Your task to perform on an android device: What's the US dollar exchange rate against the Euro? Image 0: 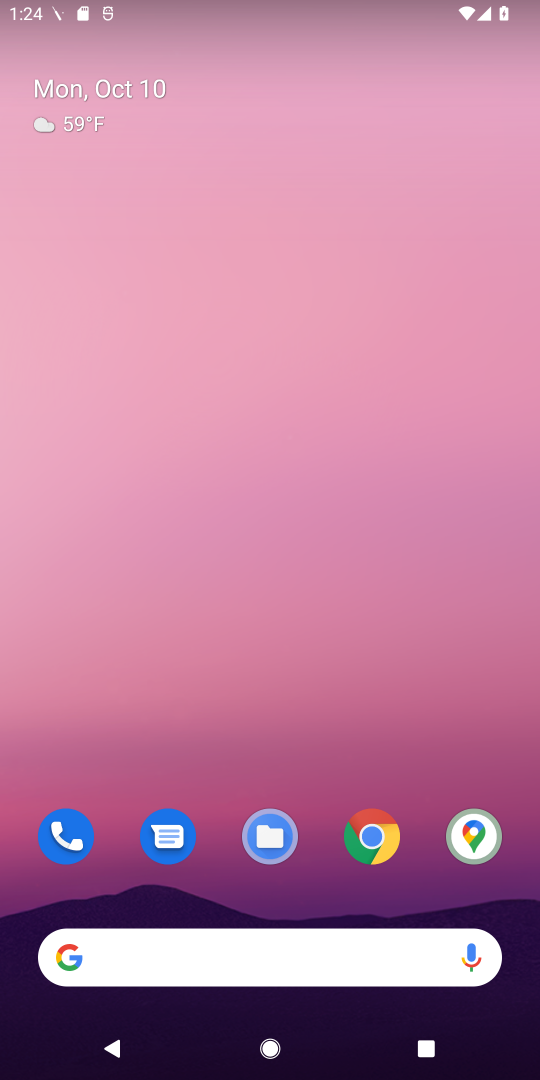
Step 0: click (373, 820)
Your task to perform on an android device: What's the US dollar exchange rate against the Euro? Image 1: 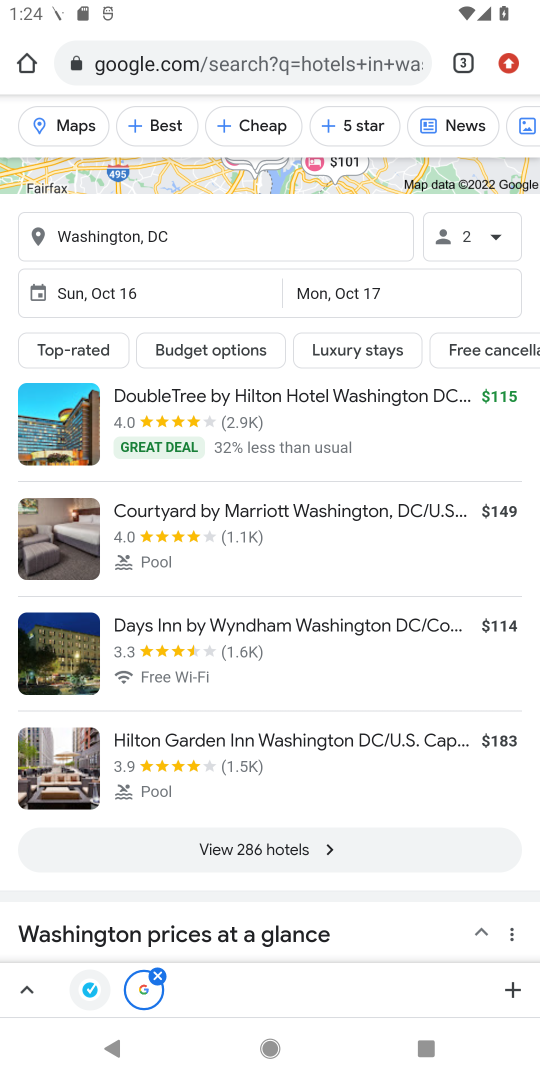
Step 1: click (235, 73)
Your task to perform on an android device: What's the US dollar exchange rate against the Euro? Image 2: 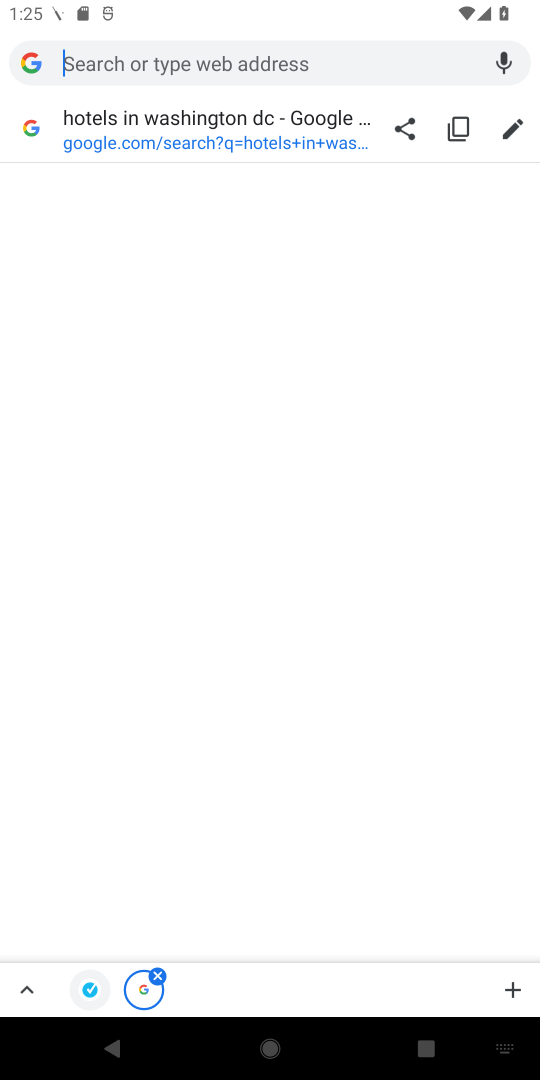
Step 2: type "US dollar exchange rate against the Euro"
Your task to perform on an android device: What's the US dollar exchange rate against the Euro? Image 3: 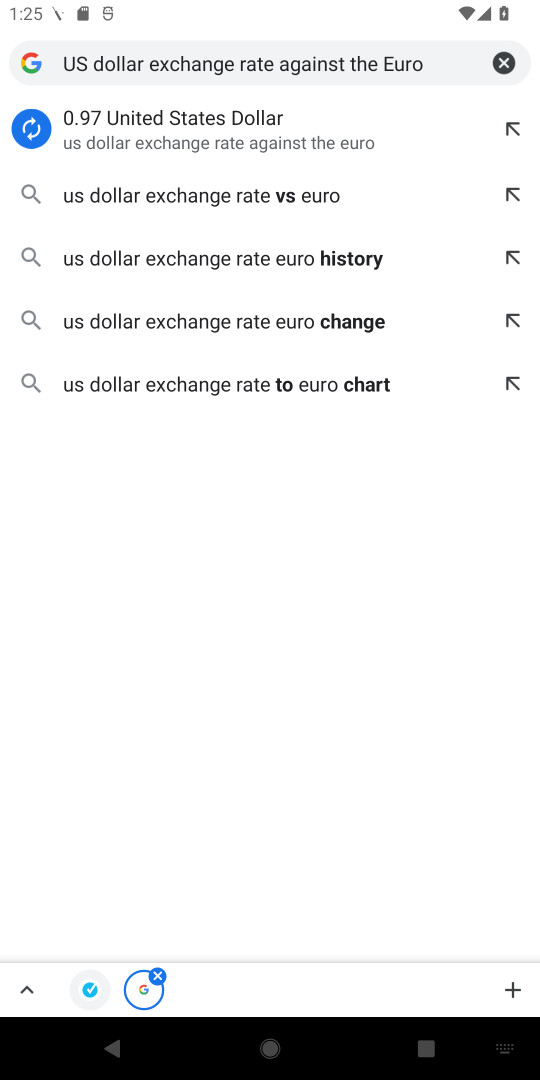
Step 3: click (243, 131)
Your task to perform on an android device: What's the US dollar exchange rate against the Euro? Image 4: 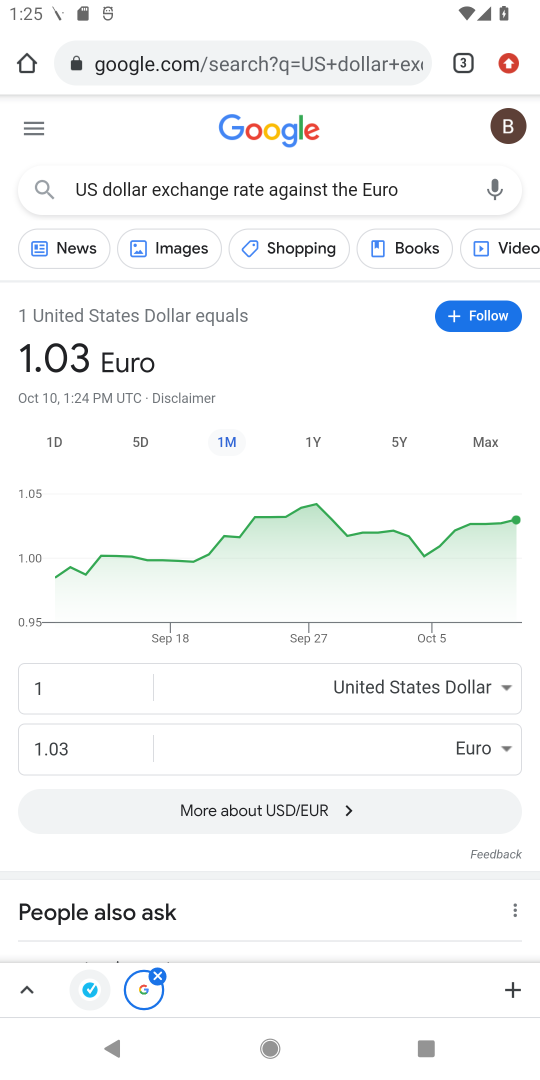
Step 4: task complete